Your task to perform on an android device: open a bookmark in the chrome app Image 0: 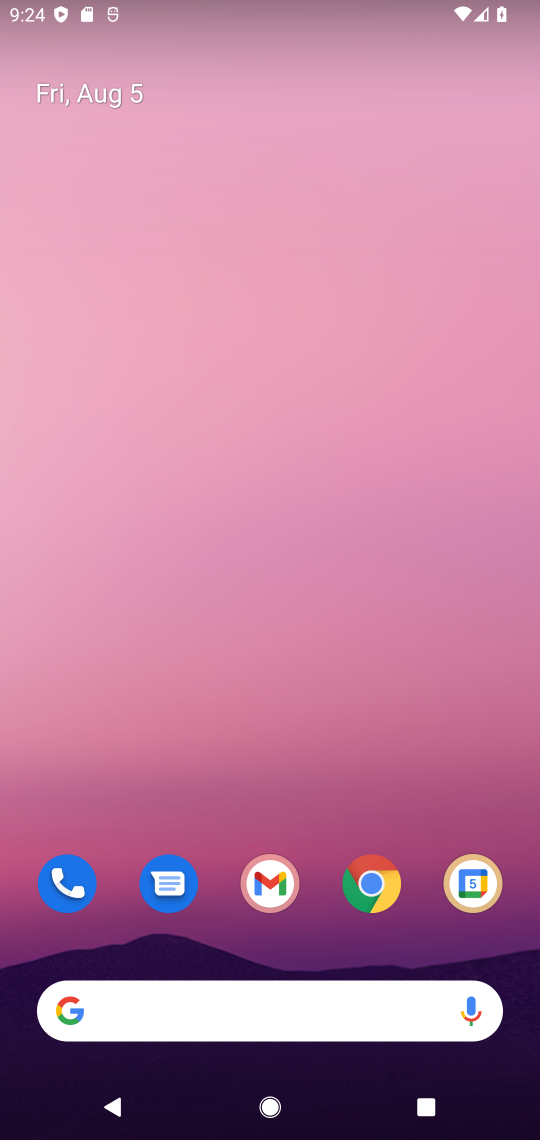
Step 0: click (377, 892)
Your task to perform on an android device: open a bookmark in the chrome app Image 1: 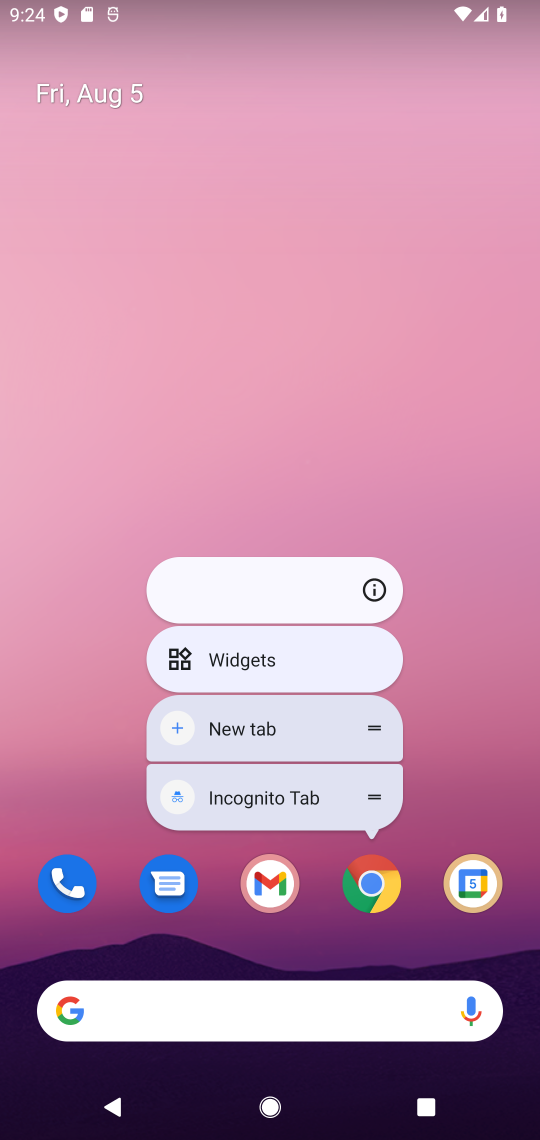
Step 1: click (383, 891)
Your task to perform on an android device: open a bookmark in the chrome app Image 2: 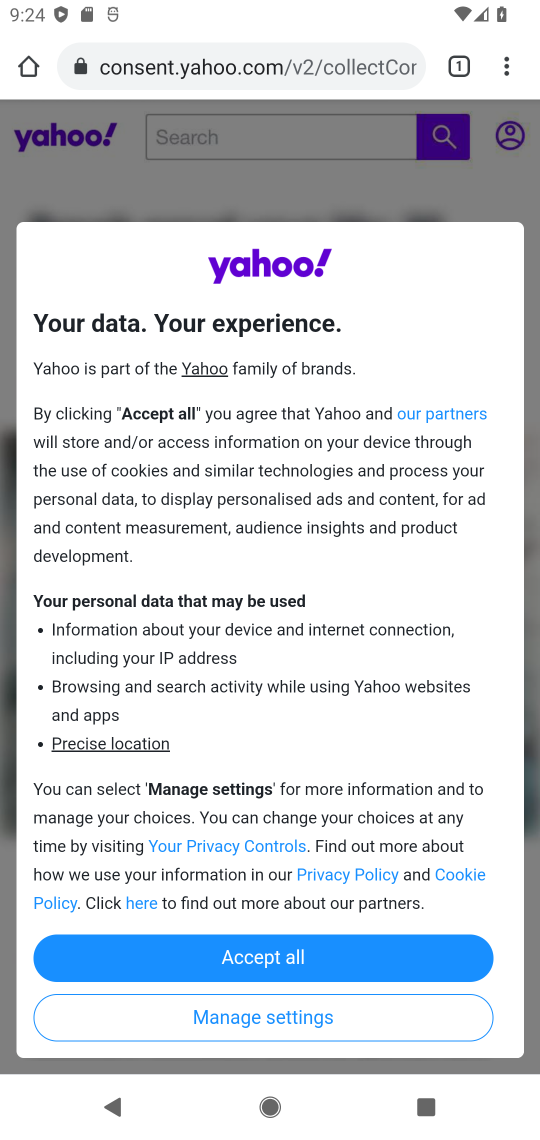
Step 2: drag from (504, 77) to (349, 371)
Your task to perform on an android device: open a bookmark in the chrome app Image 3: 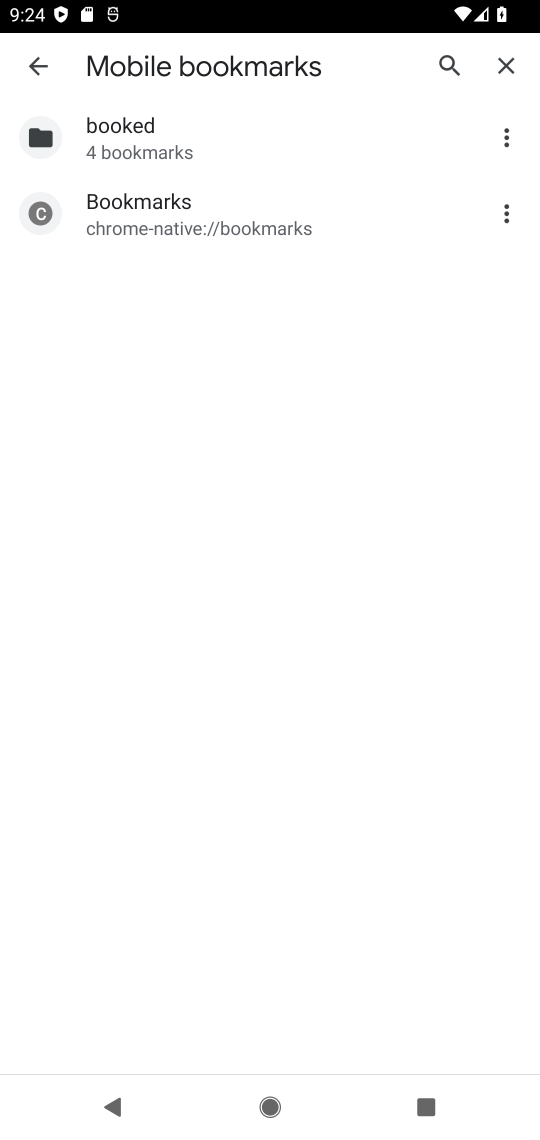
Step 3: click (179, 235)
Your task to perform on an android device: open a bookmark in the chrome app Image 4: 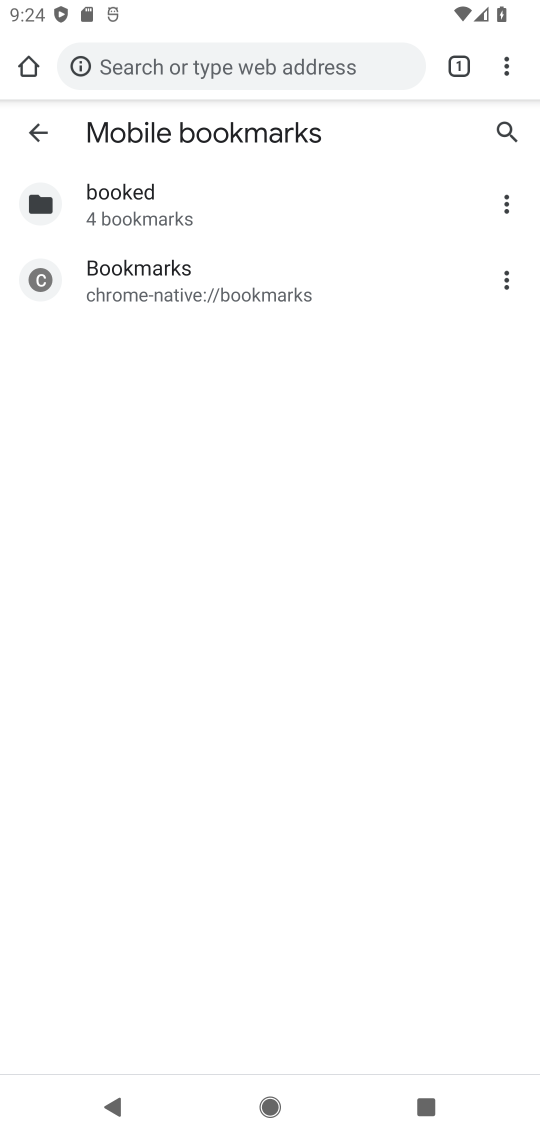
Step 4: task complete